Your task to perform on an android device: Open Android settings Image 0: 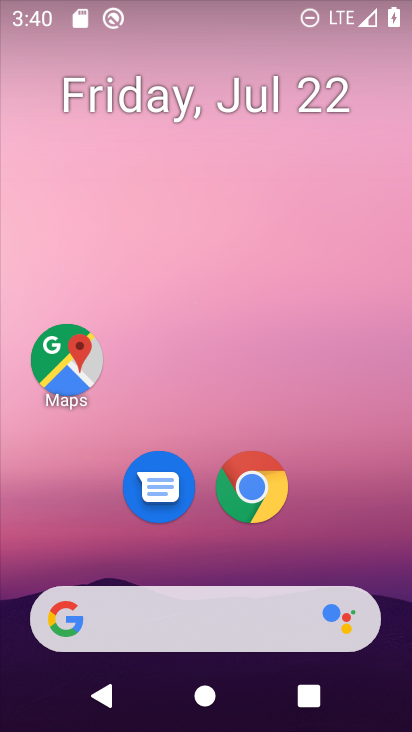
Step 0: drag from (177, 459) to (239, 32)
Your task to perform on an android device: Open Android settings Image 1: 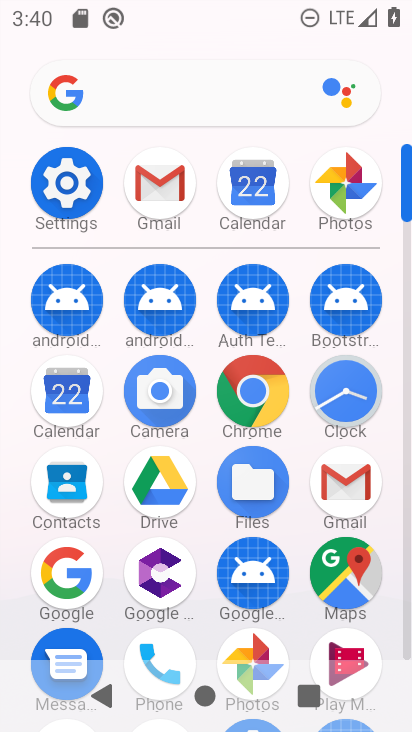
Step 1: click (71, 185)
Your task to perform on an android device: Open Android settings Image 2: 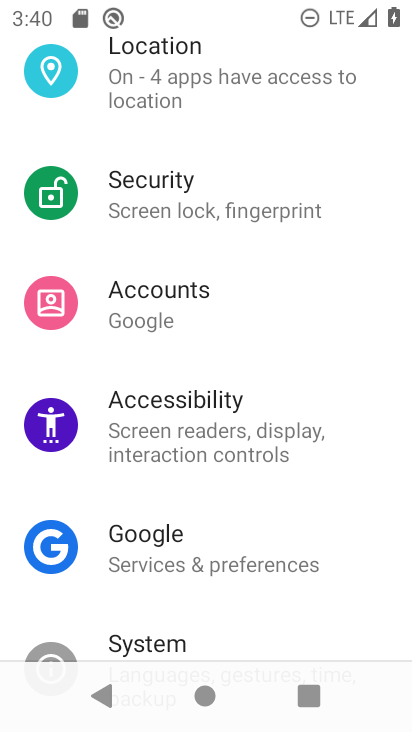
Step 2: drag from (252, 230) to (215, 723)
Your task to perform on an android device: Open Android settings Image 3: 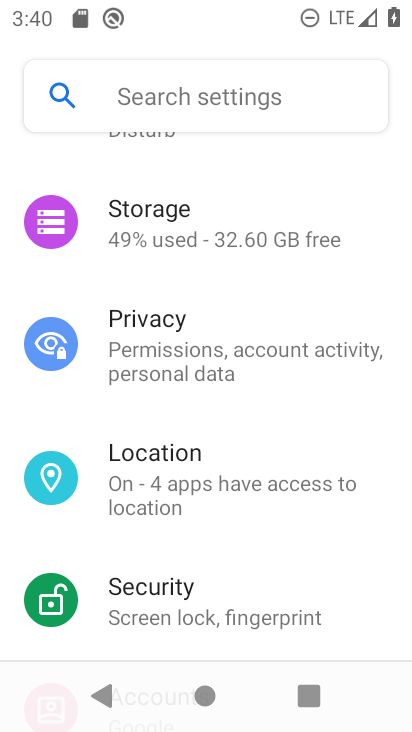
Step 3: drag from (216, 211) to (200, 730)
Your task to perform on an android device: Open Android settings Image 4: 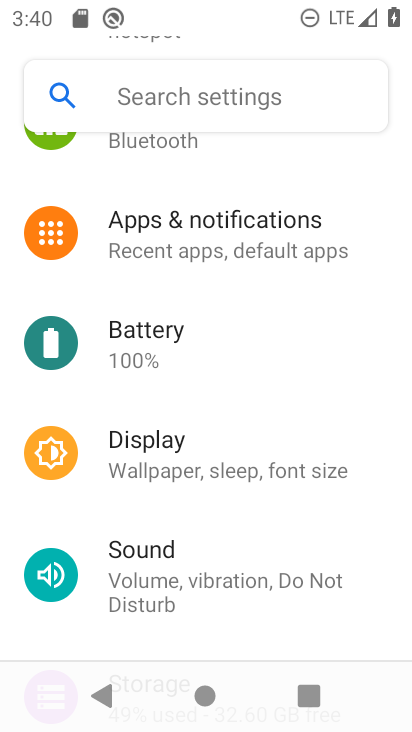
Step 4: drag from (237, 294) to (194, 728)
Your task to perform on an android device: Open Android settings Image 5: 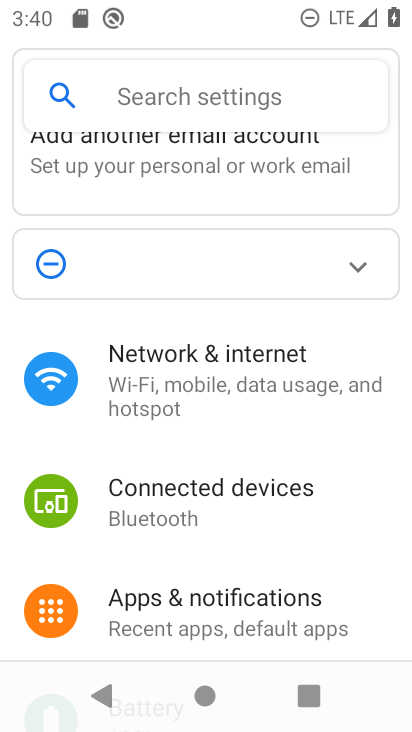
Step 5: drag from (185, 592) to (321, 10)
Your task to perform on an android device: Open Android settings Image 6: 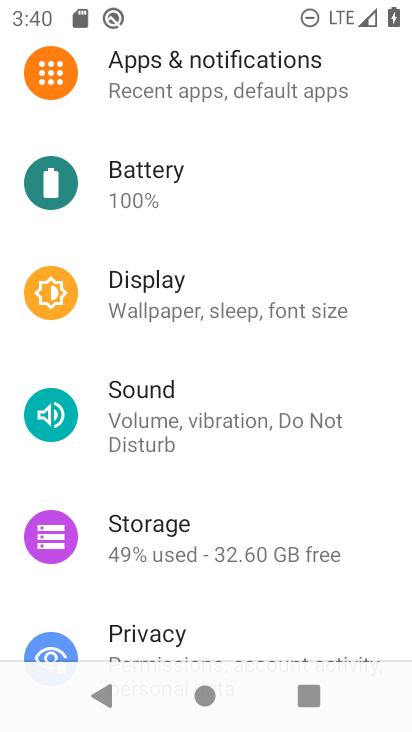
Step 6: drag from (162, 603) to (246, 14)
Your task to perform on an android device: Open Android settings Image 7: 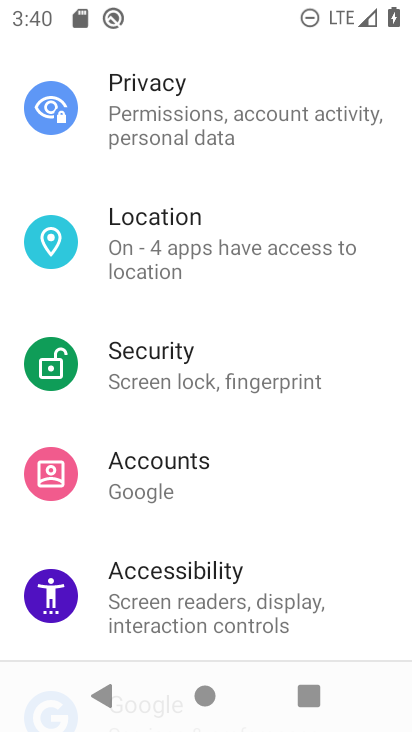
Step 7: drag from (204, 606) to (333, 25)
Your task to perform on an android device: Open Android settings Image 8: 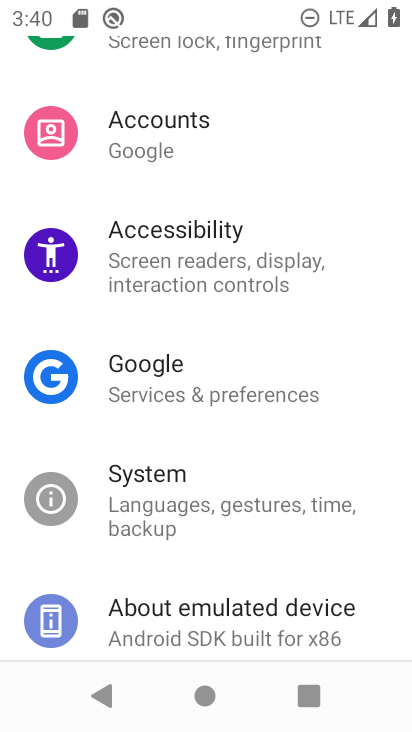
Step 8: click (169, 616)
Your task to perform on an android device: Open Android settings Image 9: 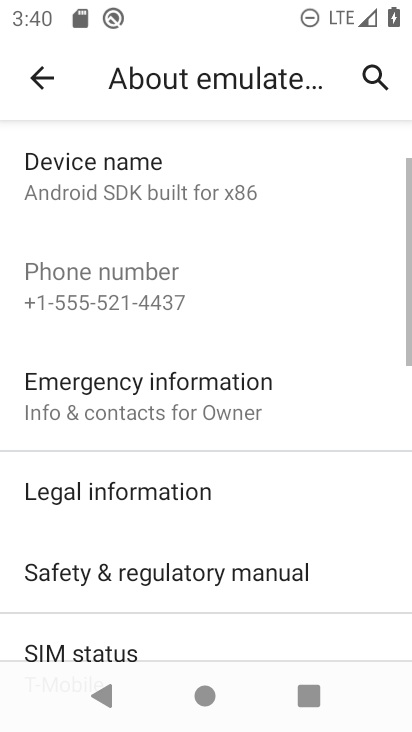
Step 9: drag from (182, 573) to (276, 3)
Your task to perform on an android device: Open Android settings Image 10: 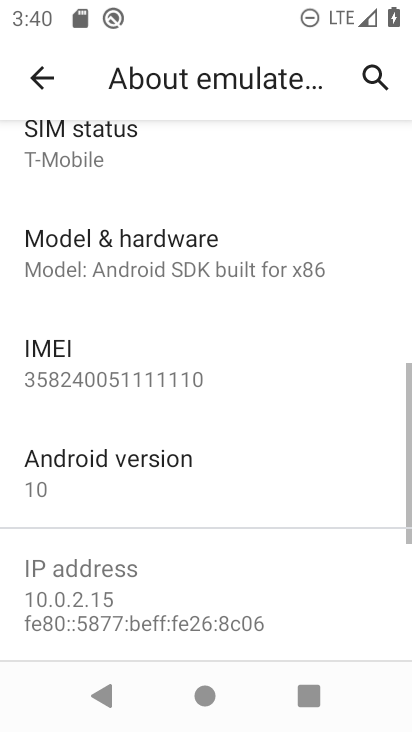
Step 10: click (106, 462)
Your task to perform on an android device: Open Android settings Image 11: 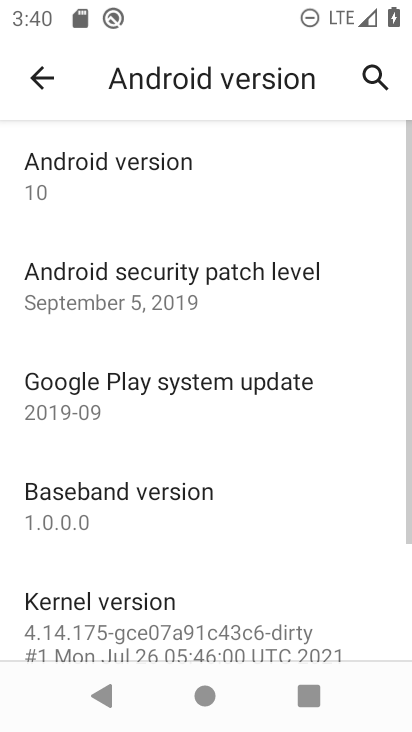
Step 11: task complete